Your task to perform on an android device: open app "The Home Depot" (install if not already installed) Image 0: 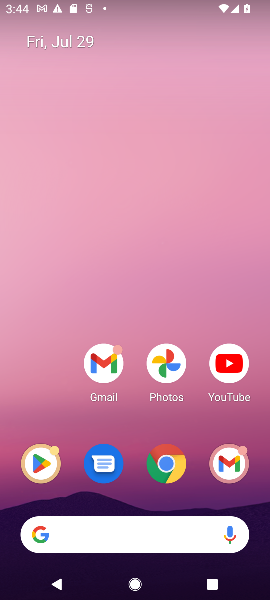
Step 0: drag from (110, 530) to (147, 56)
Your task to perform on an android device: open app "The Home Depot" (install if not already installed) Image 1: 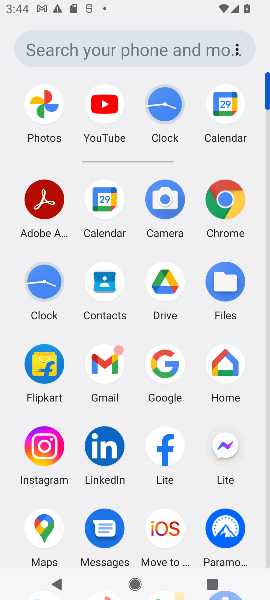
Step 1: drag from (144, 490) to (134, 258)
Your task to perform on an android device: open app "The Home Depot" (install if not already installed) Image 2: 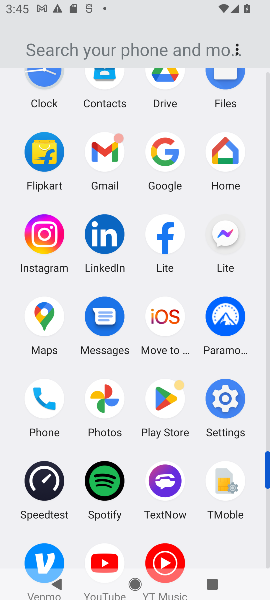
Step 2: click (164, 399)
Your task to perform on an android device: open app "The Home Depot" (install if not already installed) Image 3: 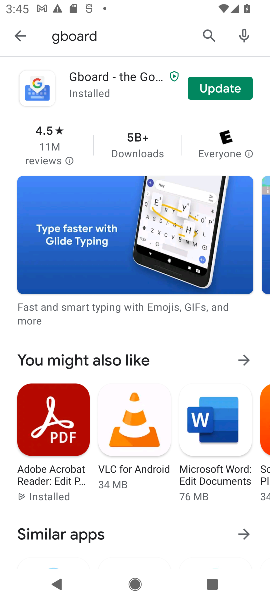
Step 3: click (207, 34)
Your task to perform on an android device: open app "The Home Depot" (install if not already installed) Image 4: 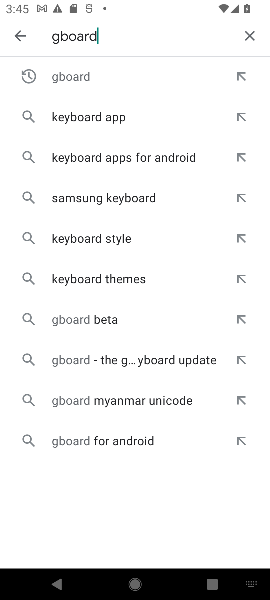
Step 4: click (252, 37)
Your task to perform on an android device: open app "The Home Depot" (install if not already installed) Image 5: 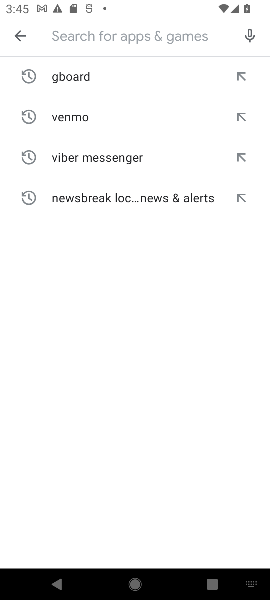
Step 5: click (173, 49)
Your task to perform on an android device: open app "The Home Depot" (install if not already installed) Image 6: 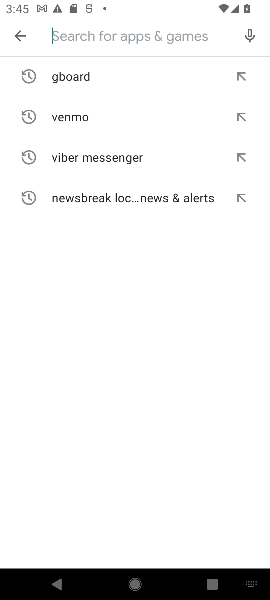
Step 6: type "The Home Depot"
Your task to perform on an android device: open app "The Home Depot" (install if not already installed) Image 7: 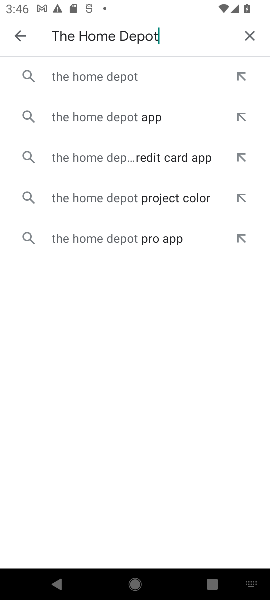
Step 7: click (123, 82)
Your task to perform on an android device: open app "The Home Depot" (install if not already installed) Image 8: 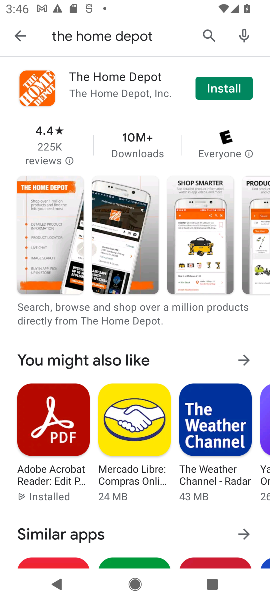
Step 8: click (226, 92)
Your task to perform on an android device: open app "The Home Depot" (install if not already installed) Image 9: 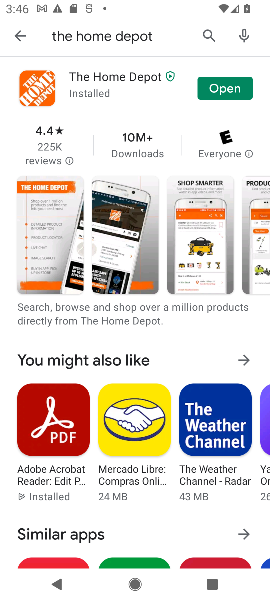
Step 9: click (213, 92)
Your task to perform on an android device: open app "The Home Depot" (install if not already installed) Image 10: 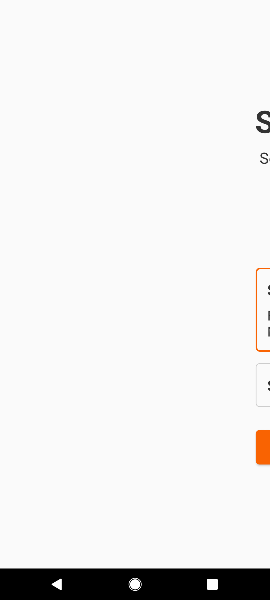
Step 10: task complete